Your task to perform on an android device: open a bookmark in the chrome app Image 0: 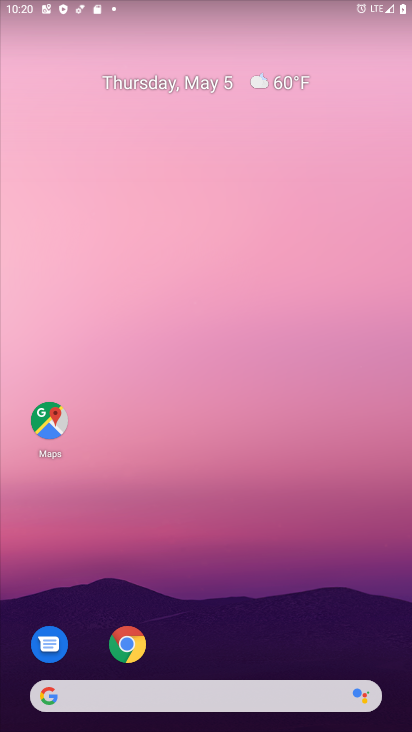
Step 0: click (142, 647)
Your task to perform on an android device: open a bookmark in the chrome app Image 1: 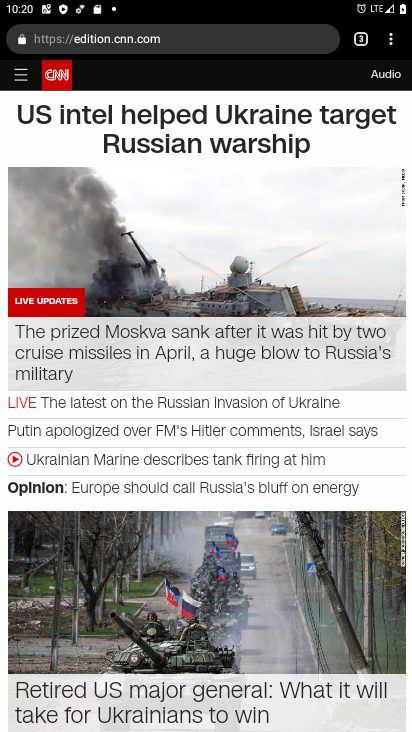
Step 1: drag from (392, 40) to (277, 150)
Your task to perform on an android device: open a bookmark in the chrome app Image 2: 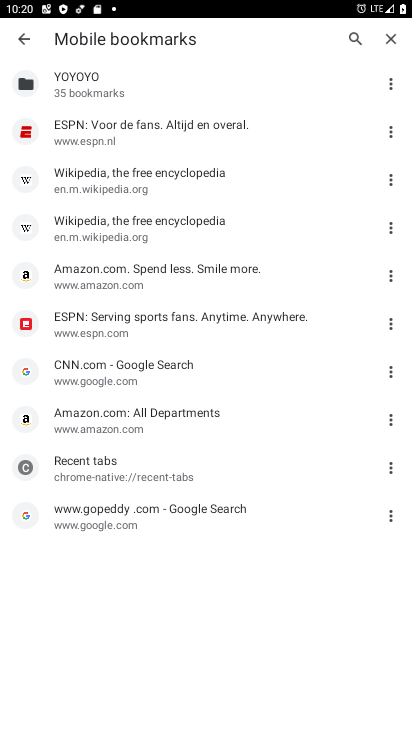
Step 2: click (113, 237)
Your task to perform on an android device: open a bookmark in the chrome app Image 3: 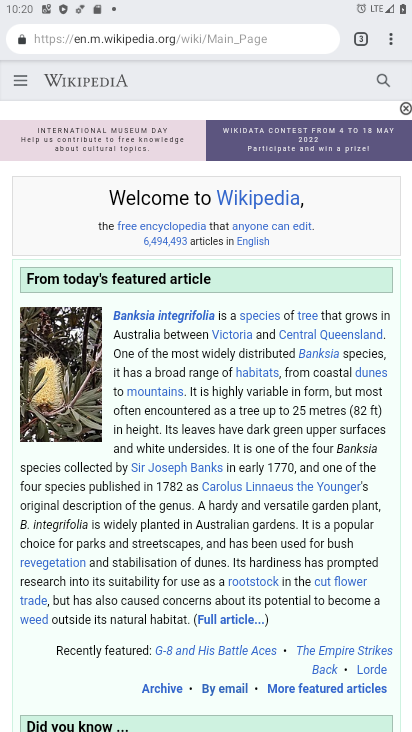
Step 3: task complete